Your task to perform on an android device: Open CNN.com Image 0: 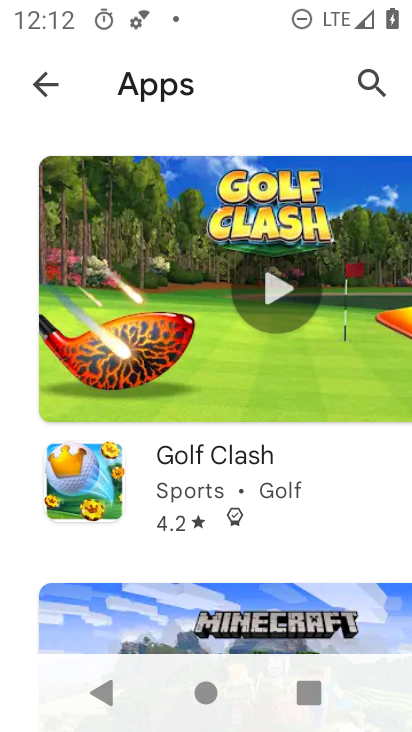
Step 0: press home button
Your task to perform on an android device: Open CNN.com Image 1: 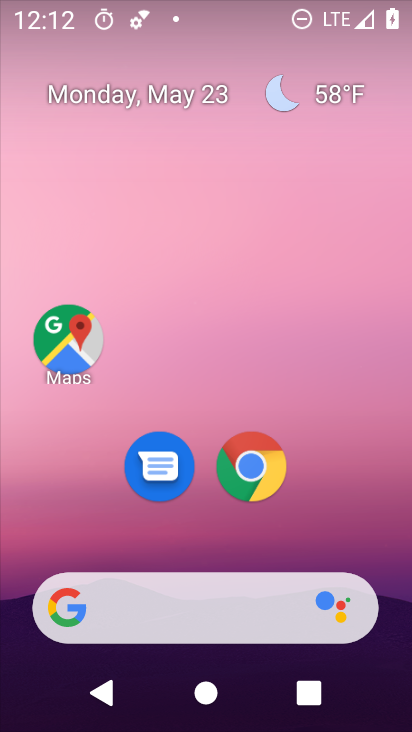
Step 1: drag from (205, 530) to (222, 1)
Your task to perform on an android device: Open CNN.com Image 2: 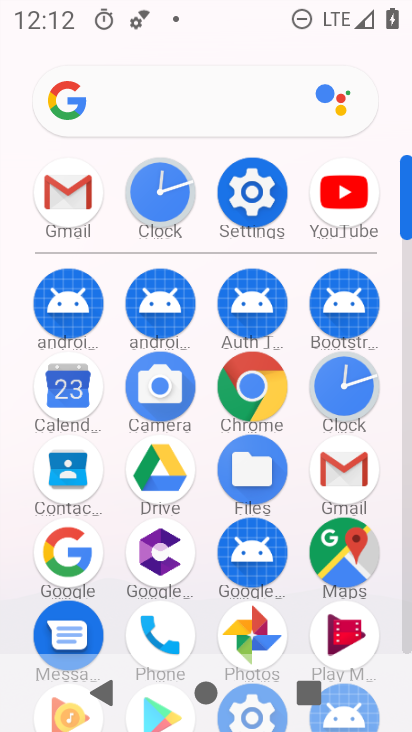
Step 2: click (70, 553)
Your task to perform on an android device: Open CNN.com Image 3: 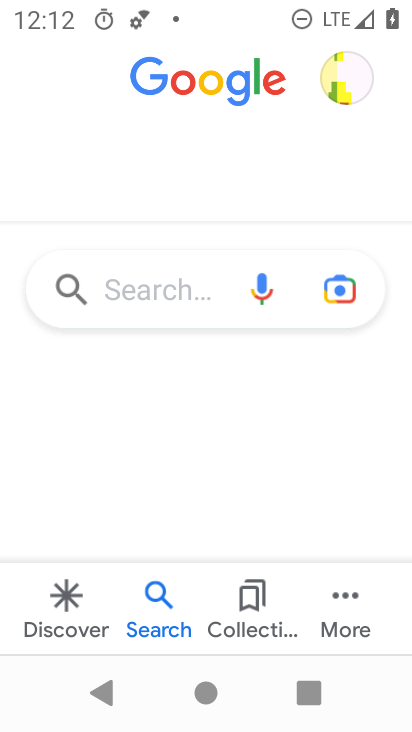
Step 3: click (155, 289)
Your task to perform on an android device: Open CNN.com Image 4: 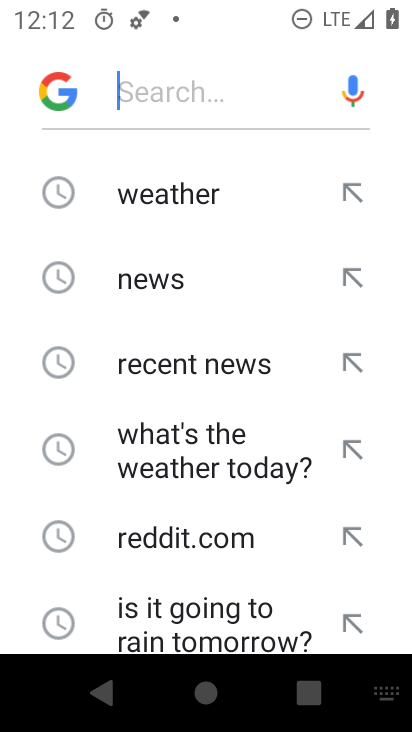
Step 4: drag from (234, 494) to (223, 101)
Your task to perform on an android device: Open CNN.com Image 5: 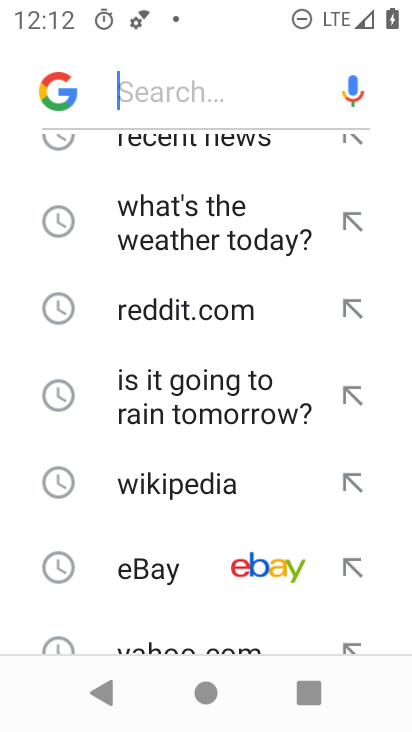
Step 5: drag from (207, 592) to (221, 236)
Your task to perform on an android device: Open CNN.com Image 6: 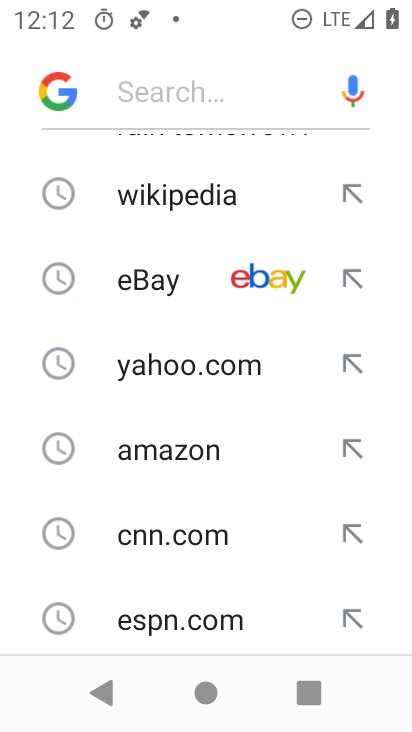
Step 6: click (174, 544)
Your task to perform on an android device: Open CNN.com Image 7: 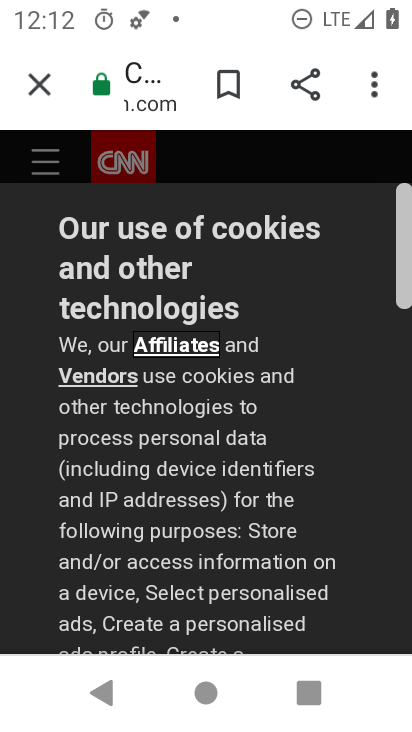
Step 7: task complete